Your task to perform on an android device: Open Wikipedia Image 0: 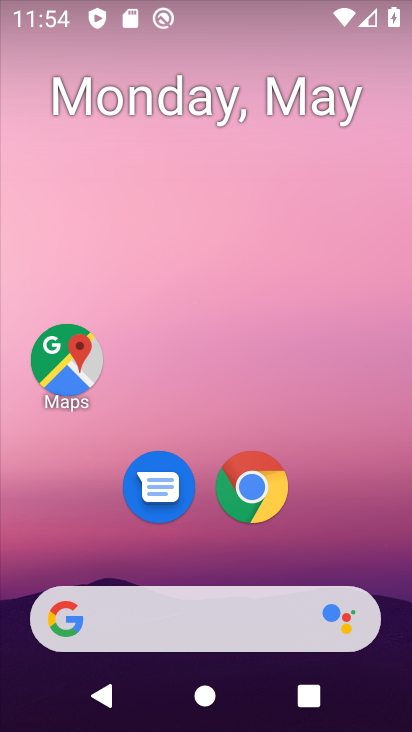
Step 0: click (261, 487)
Your task to perform on an android device: Open Wikipedia Image 1: 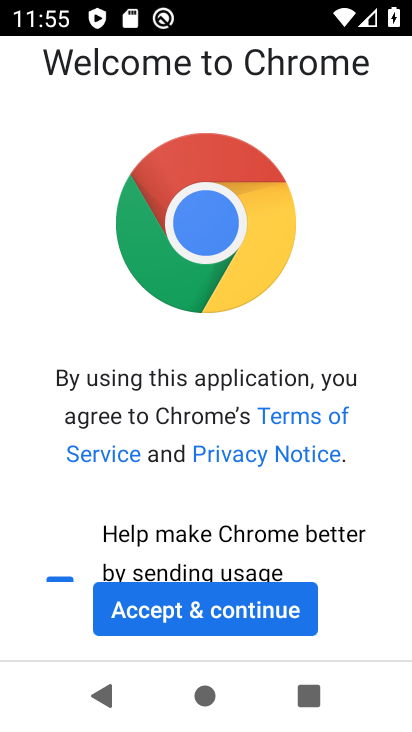
Step 1: click (264, 606)
Your task to perform on an android device: Open Wikipedia Image 2: 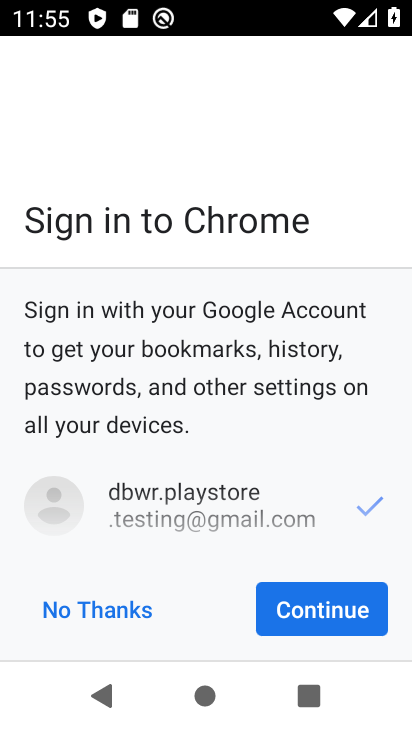
Step 2: click (344, 611)
Your task to perform on an android device: Open Wikipedia Image 3: 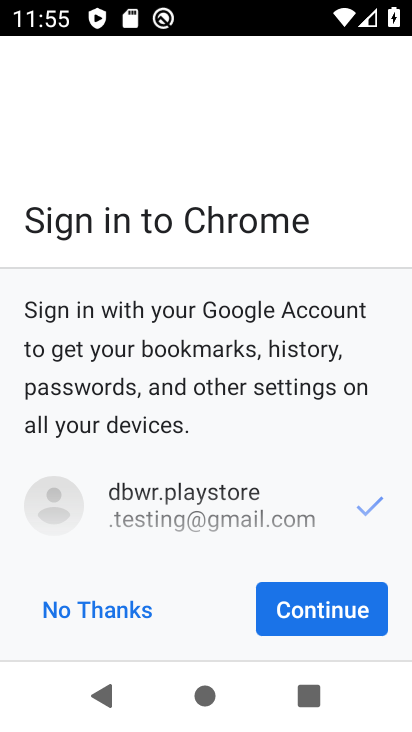
Step 3: click (344, 611)
Your task to perform on an android device: Open Wikipedia Image 4: 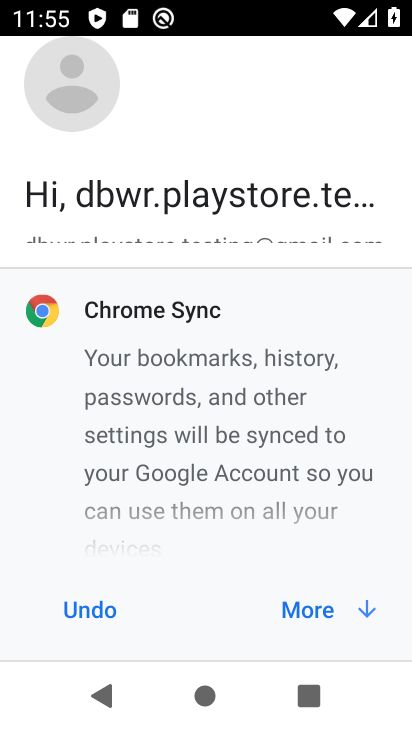
Step 4: click (344, 611)
Your task to perform on an android device: Open Wikipedia Image 5: 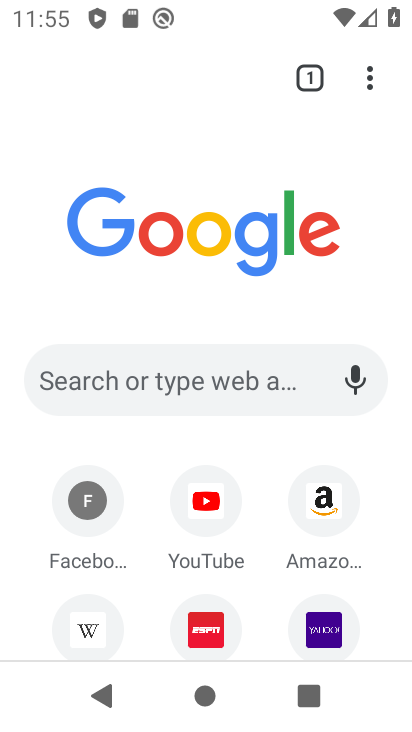
Step 5: click (85, 617)
Your task to perform on an android device: Open Wikipedia Image 6: 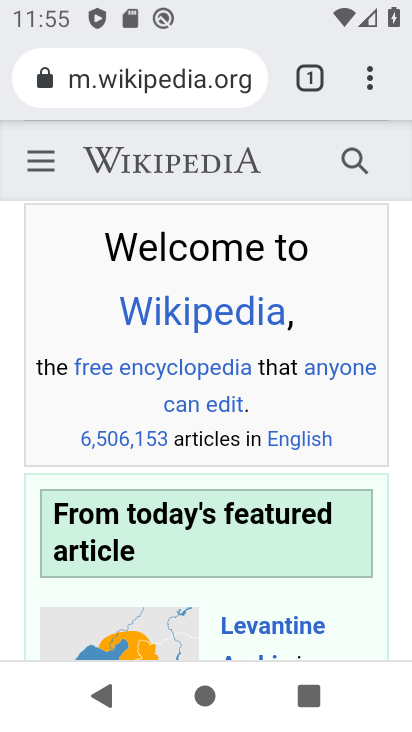
Step 6: task complete